Your task to perform on an android device: clear history in the chrome app Image 0: 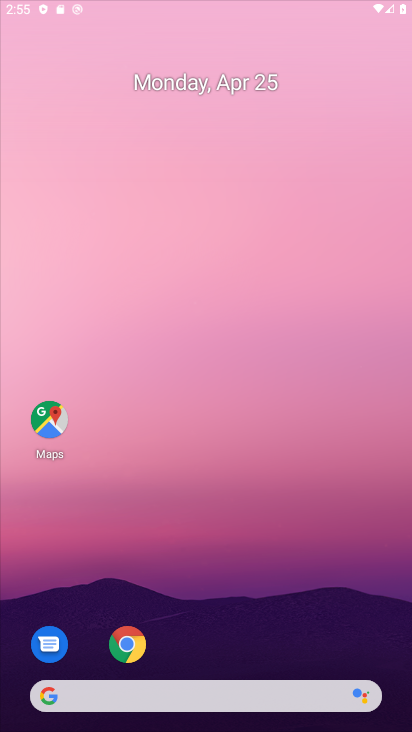
Step 0: click (126, 639)
Your task to perform on an android device: clear history in the chrome app Image 1: 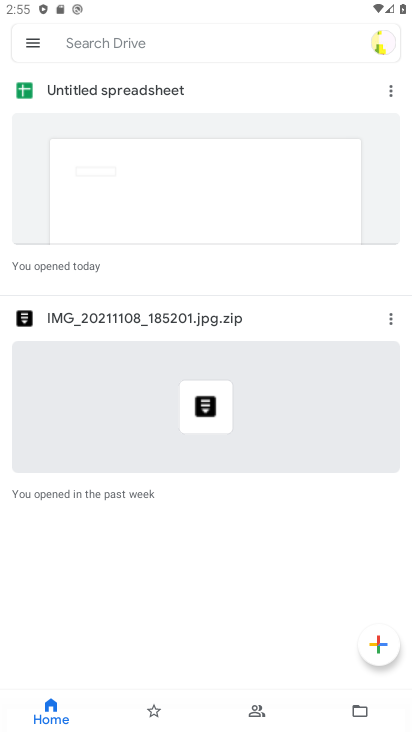
Step 1: press home button
Your task to perform on an android device: clear history in the chrome app Image 2: 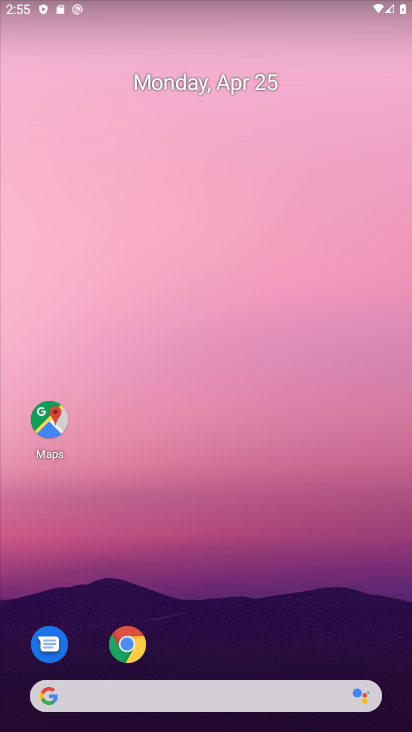
Step 2: click (126, 645)
Your task to perform on an android device: clear history in the chrome app Image 3: 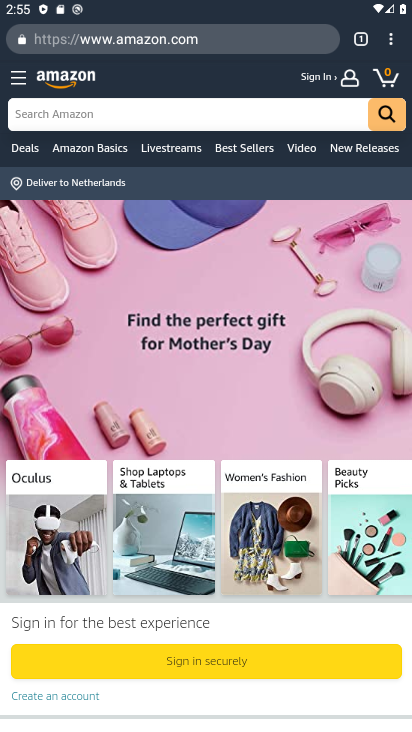
Step 3: click (391, 40)
Your task to perform on an android device: clear history in the chrome app Image 4: 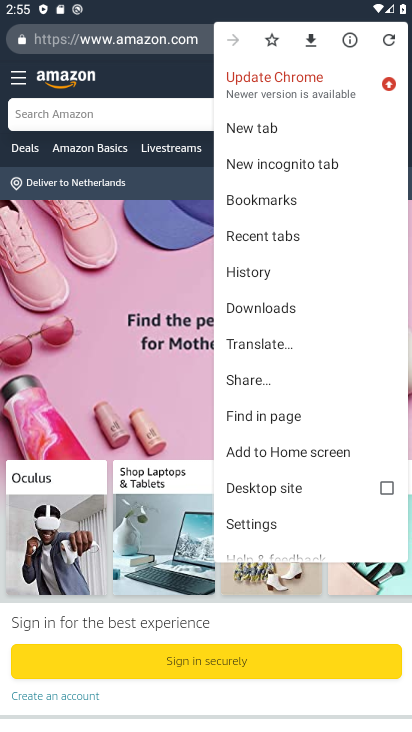
Step 4: click (265, 275)
Your task to perform on an android device: clear history in the chrome app Image 5: 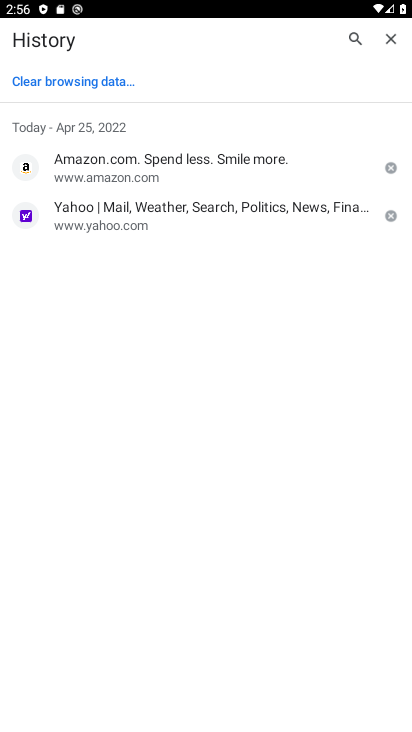
Step 5: click (100, 82)
Your task to perform on an android device: clear history in the chrome app Image 6: 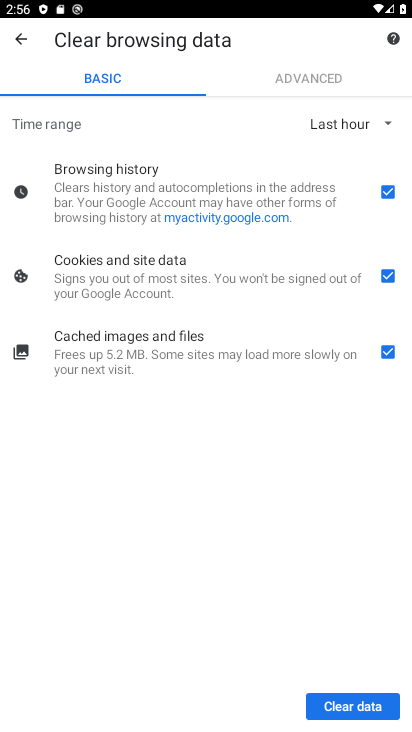
Step 6: click (366, 695)
Your task to perform on an android device: clear history in the chrome app Image 7: 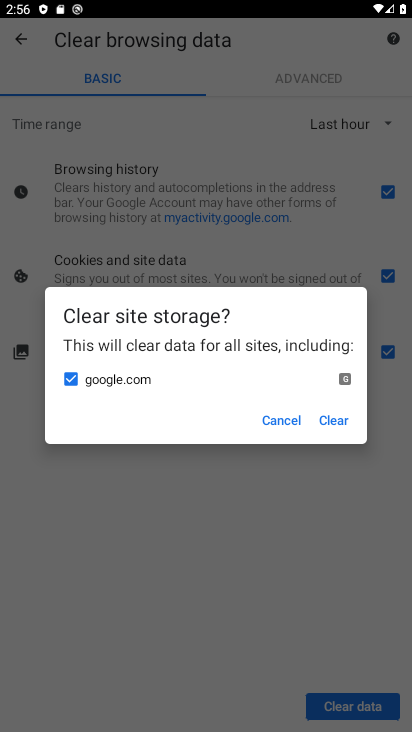
Step 7: click (339, 425)
Your task to perform on an android device: clear history in the chrome app Image 8: 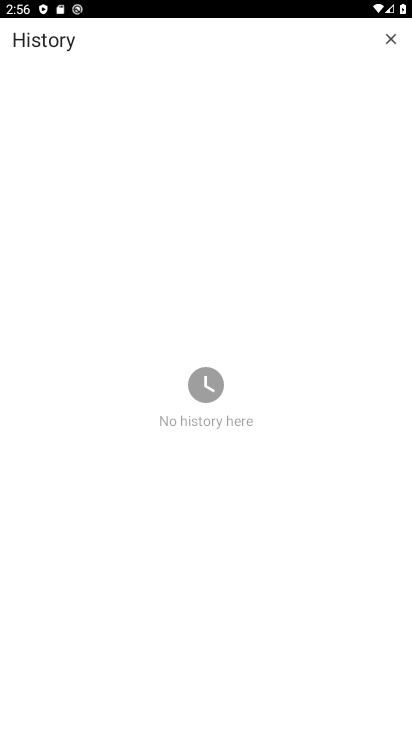
Step 8: task complete